Your task to perform on an android device: change timer sound Image 0: 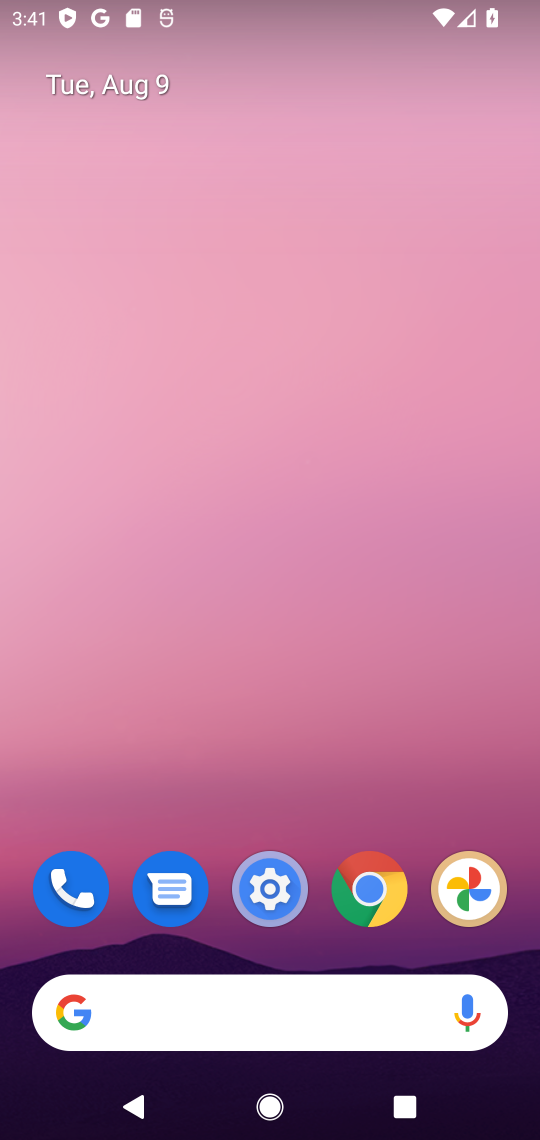
Step 0: drag from (306, 781) to (365, 0)
Your task to perform on an android device: change timer sound Image 1: 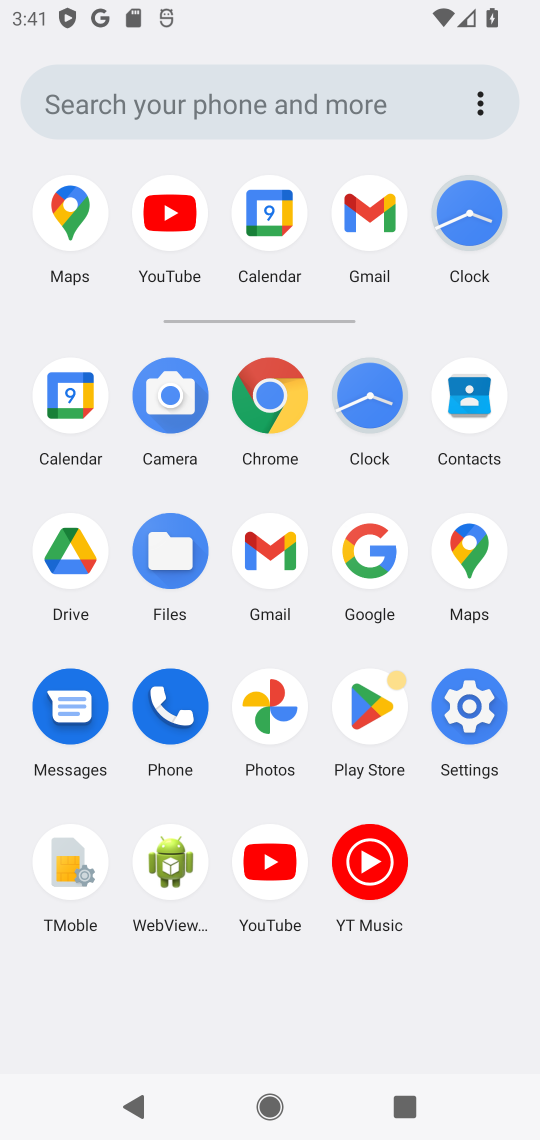
Step 1: click (465, 187)
Your task to perform on an android device: change timer sound Image 2: 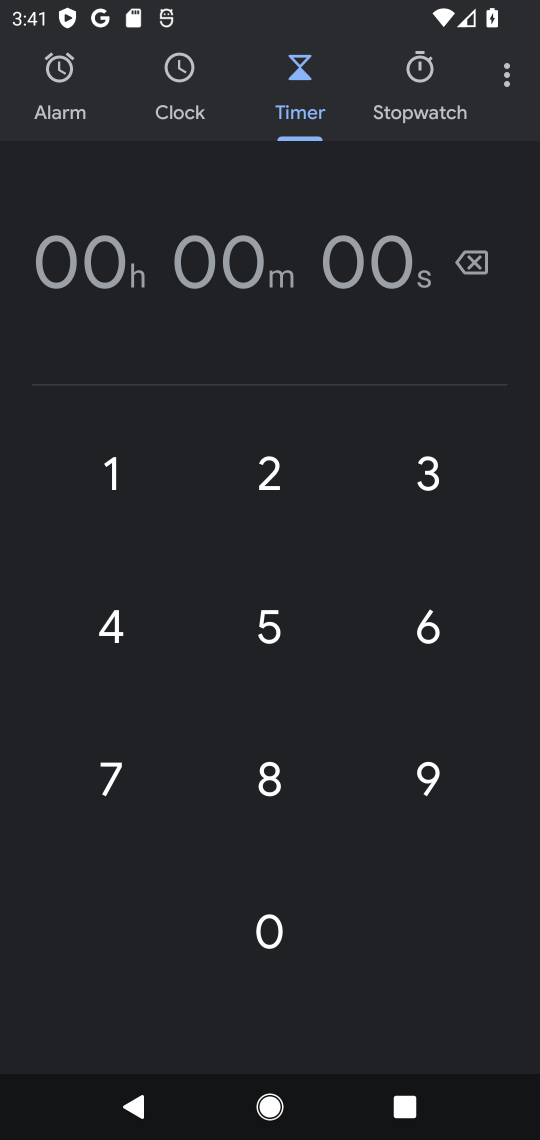
Step 2: click (497, 81)
Your task to perform on an android device: change timer sound Image 3: 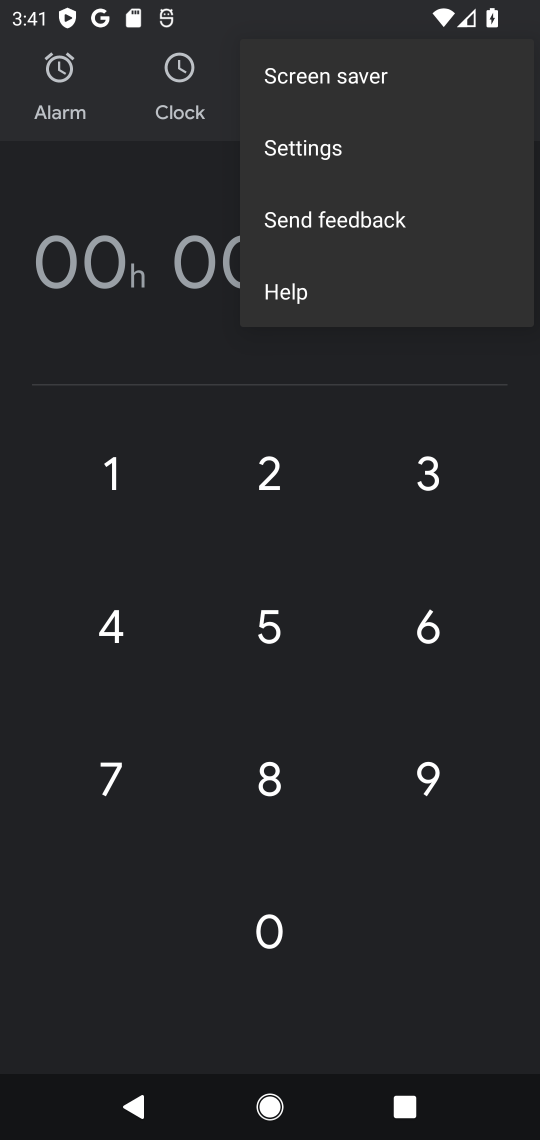
Step 3: click (356, 150)
Your task to perform on an android device: change timer sound Image 4: 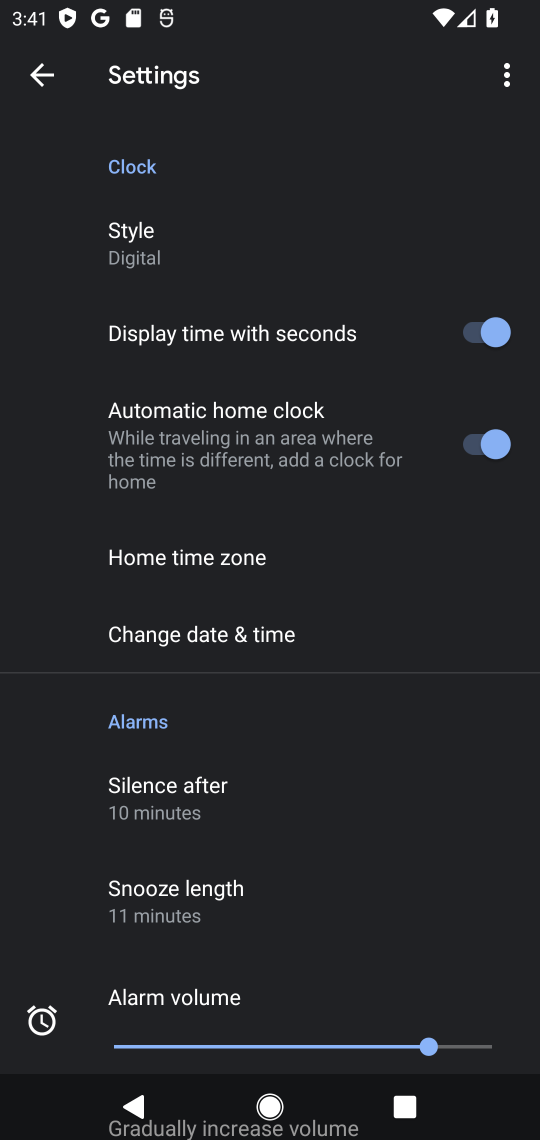
Step 4: drag from (338, 904) to (424, 87)
Your task to perform on an android device: change timer sound Image 5: 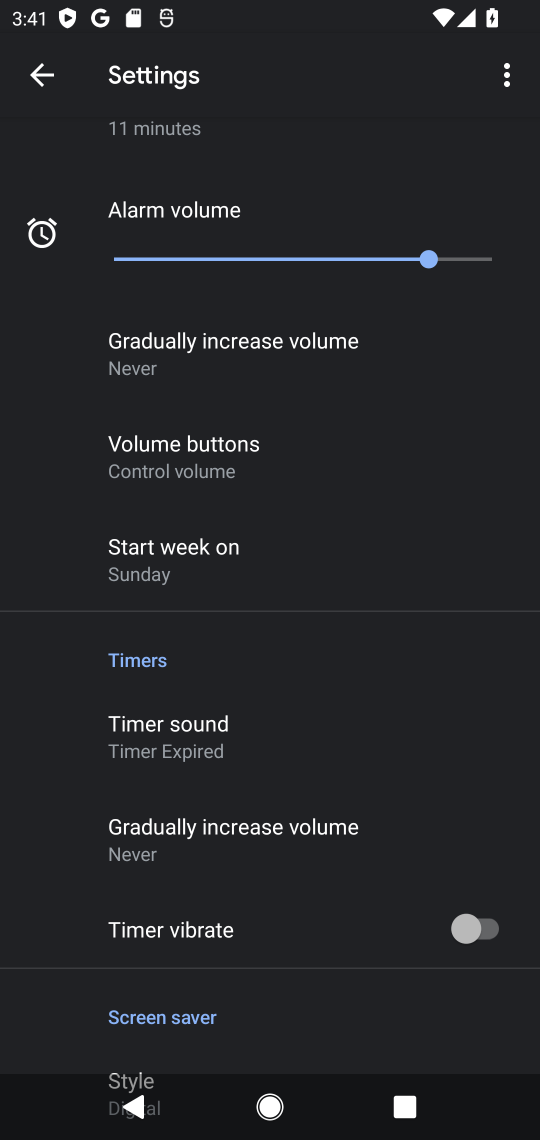
Step 5: click (201, 718)
Your task to perform on an android device: change timer sound Image 6: 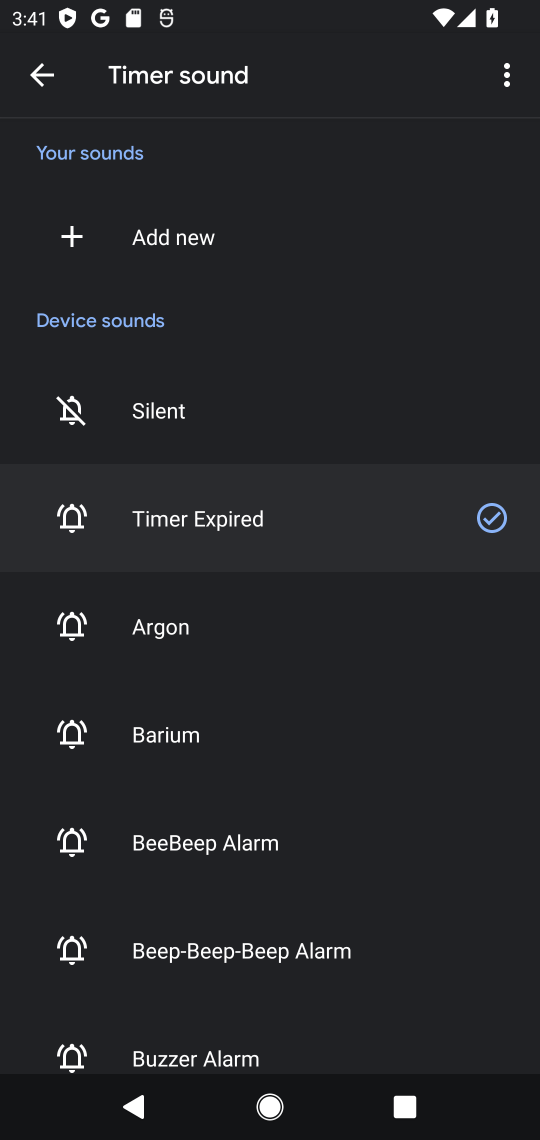
Step 6: click (175, 619)
Your task to perform on an android device: change timer sound Image 7: 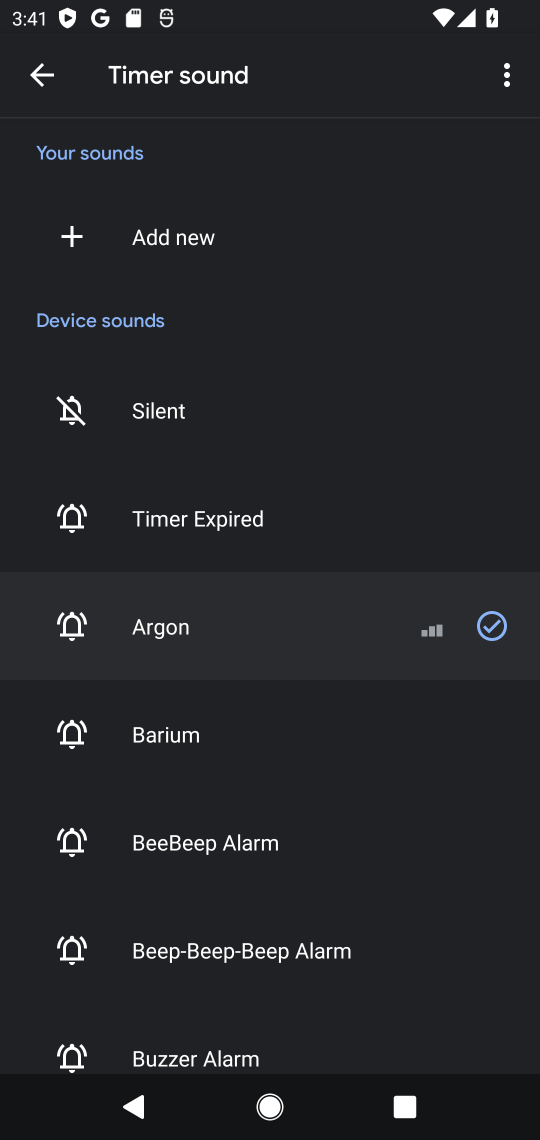
Step 7: task complete